Your task to perform on an android device: stop showing notifications on the lock screen Image 0: 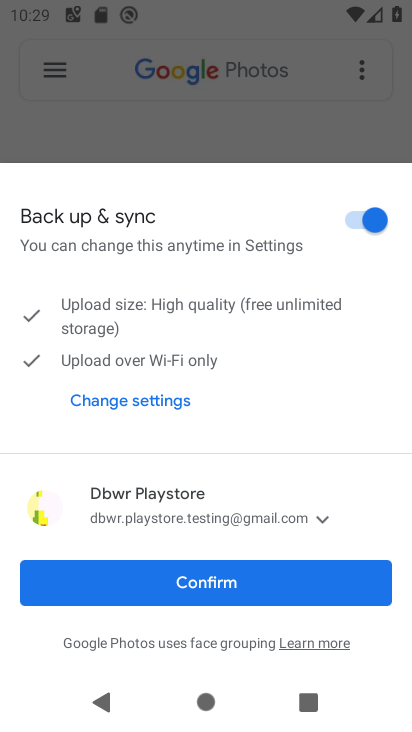
Step 0: press home button
Your task to perform on an android device: stop showing notifications on the lock screen Image 1: 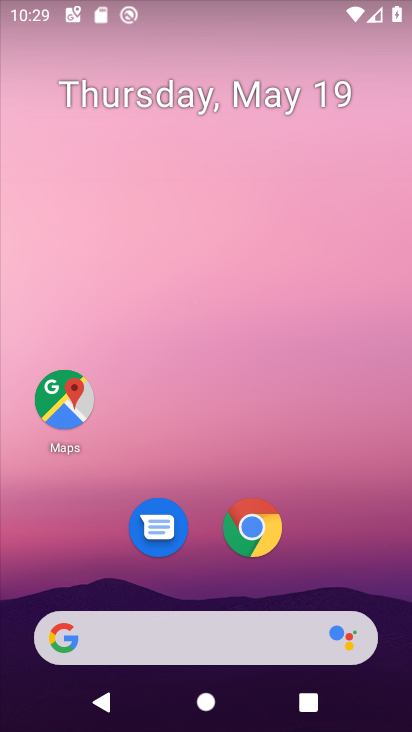
Step 1: drag from (373, 575) to (314, 112)
Your task to perform on an android device: stop showing notifications on the lock screen Image 2: 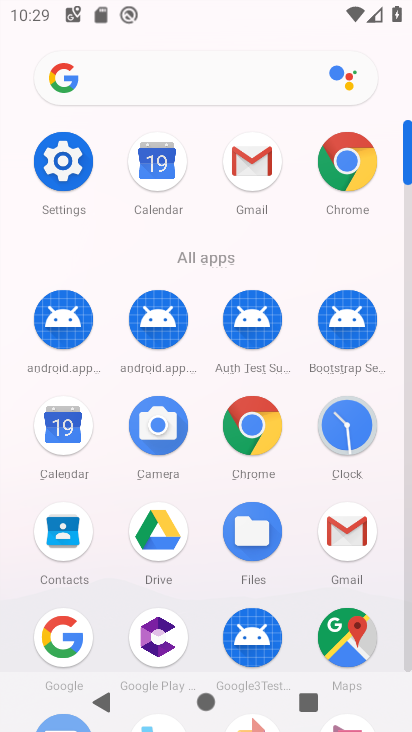
Step 2: click (58, 157)
Your task to perform on an android device: stop showing notifications on the lock screen Image 3: 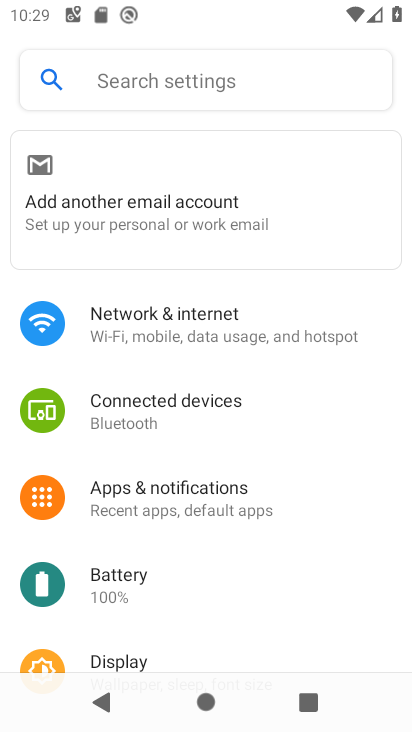
Step 3: click (208, 492)
Your task to perform on an android device: stop showing notifications on the lock screen Image 4: 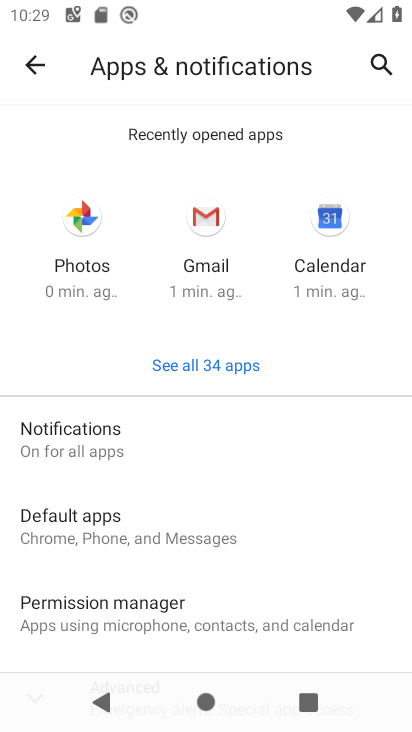
Step 4: click (209, 435)
Your task to perform on an android device: stop showing notifications on the lock screen Image 5: 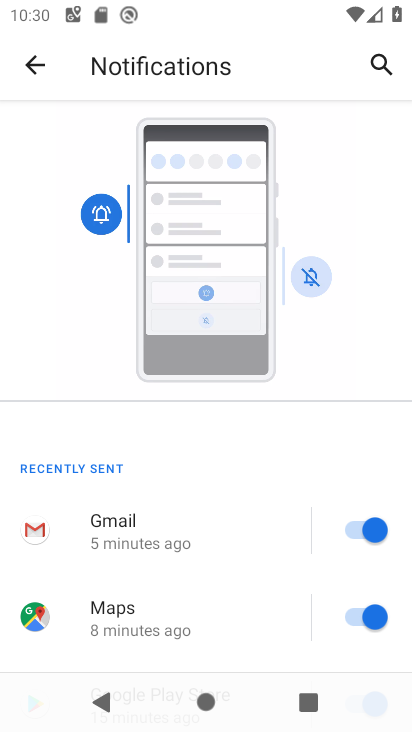
Step 5: drag from (228, 630) to (213, 191)
Your task to perform on an android device: stop showing notifications on the lock screen Image 6: 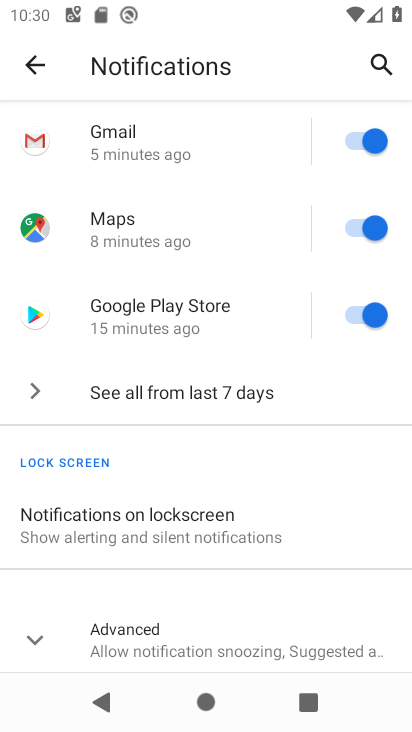
Step 6: click (218, 530)
Your task to perform on an android device: stop showing notifications on the lock screen Image 7: 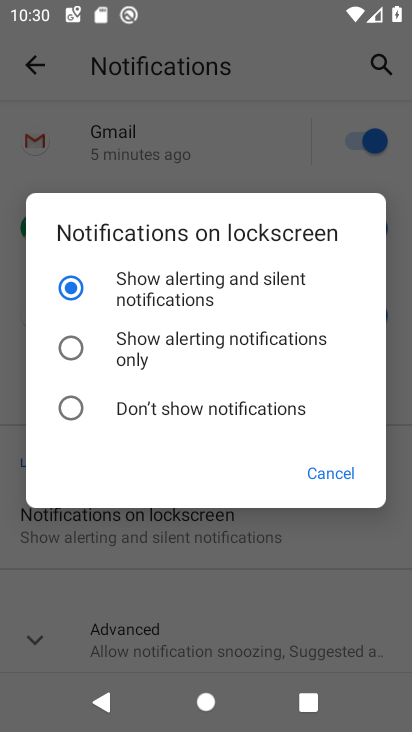
Step 7: click (213, 421)
Your task to perform on an android device: stop showing notifications on the lock screen Image 8: 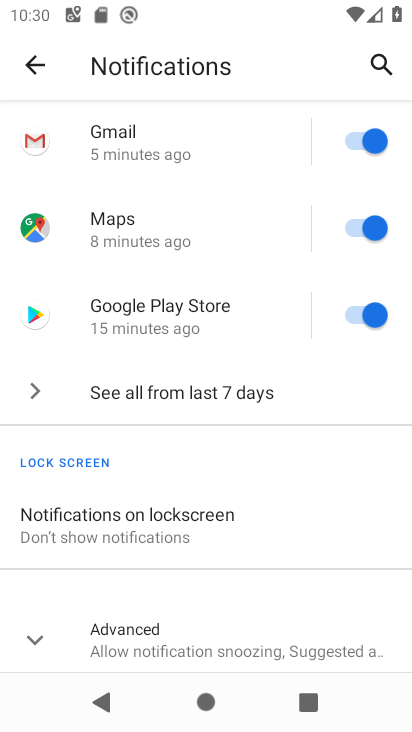
Step 8: task complete